Your task to perform on an android device: Open internet settings Image 0: 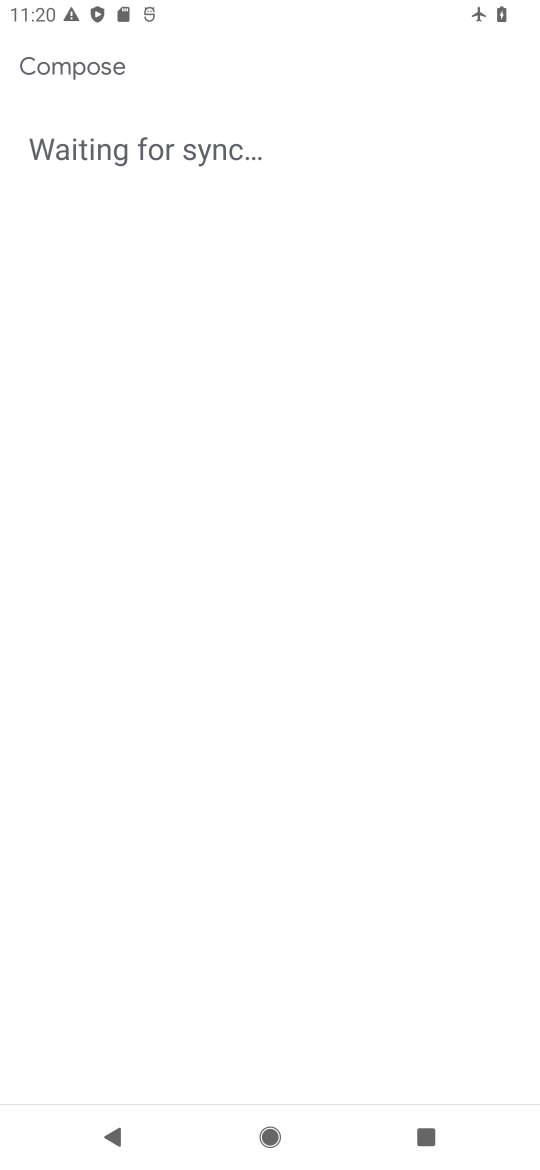
Step 0: press home button
Your task to perform on an android device: Open internet settings Image 1: 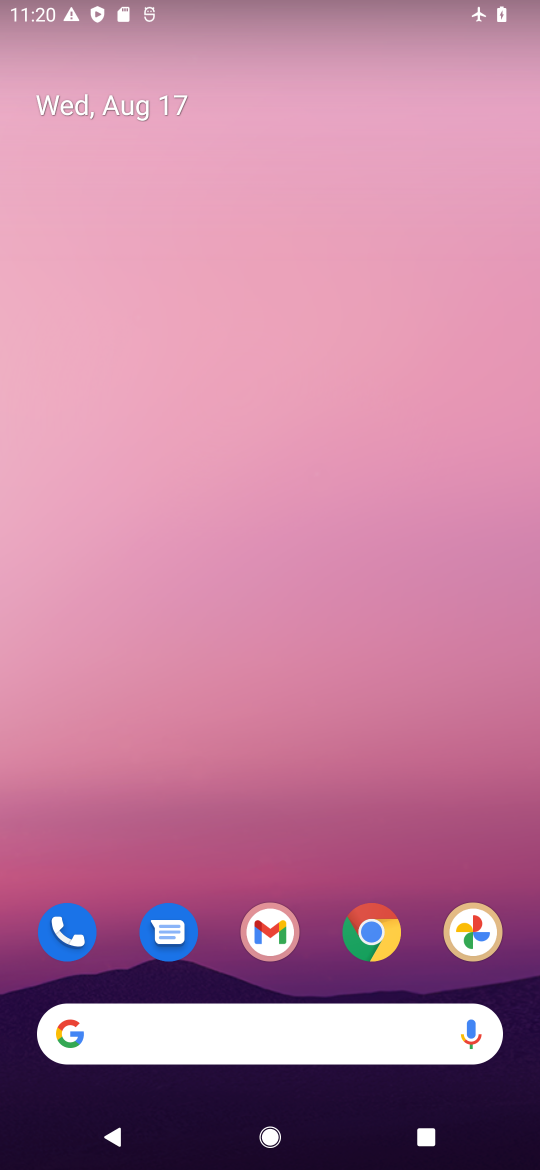
Step 1: drag from (358, 698) to (358, 157)
Your task to perform on an android device: Open internet settings Image 2: 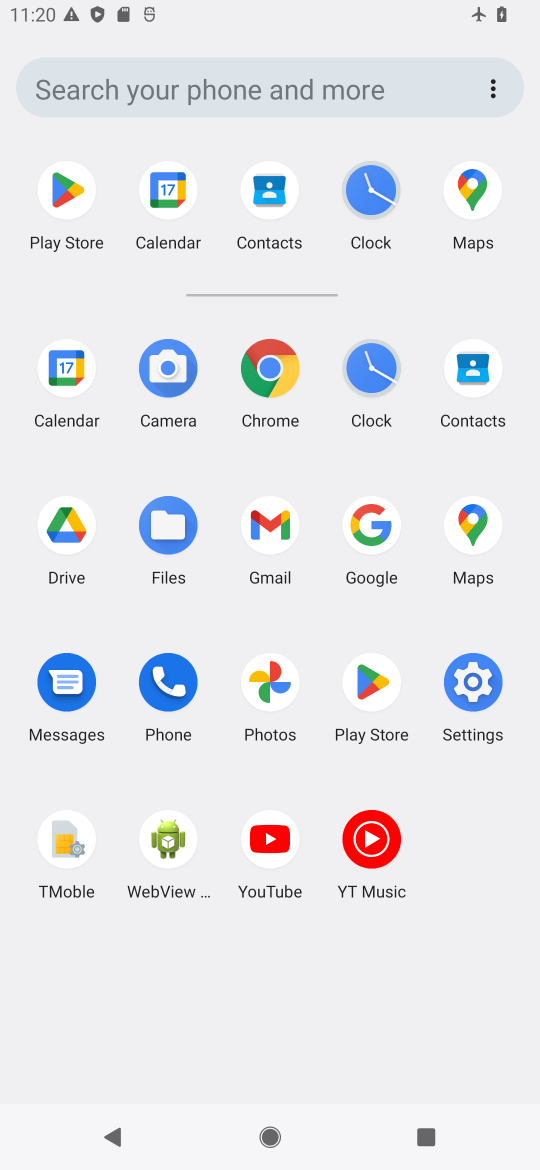
Step 2: click (491, 694)
Your task to perform on an android device: Open internet settings Image 3: 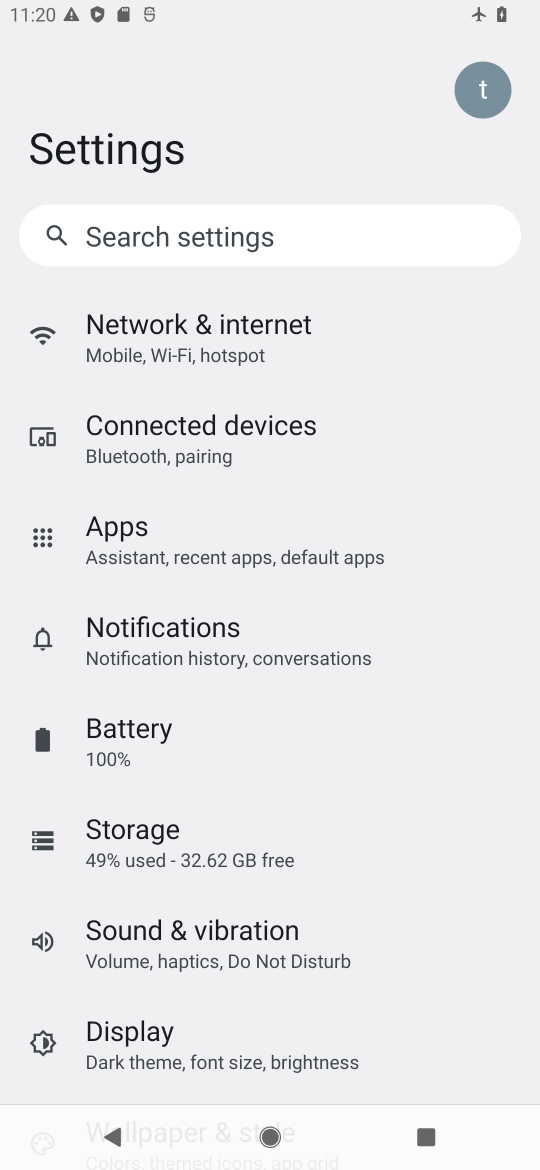
Step 3: task complete